Your task to perform on an android device: Show me the alarms in the clock app Image 0: 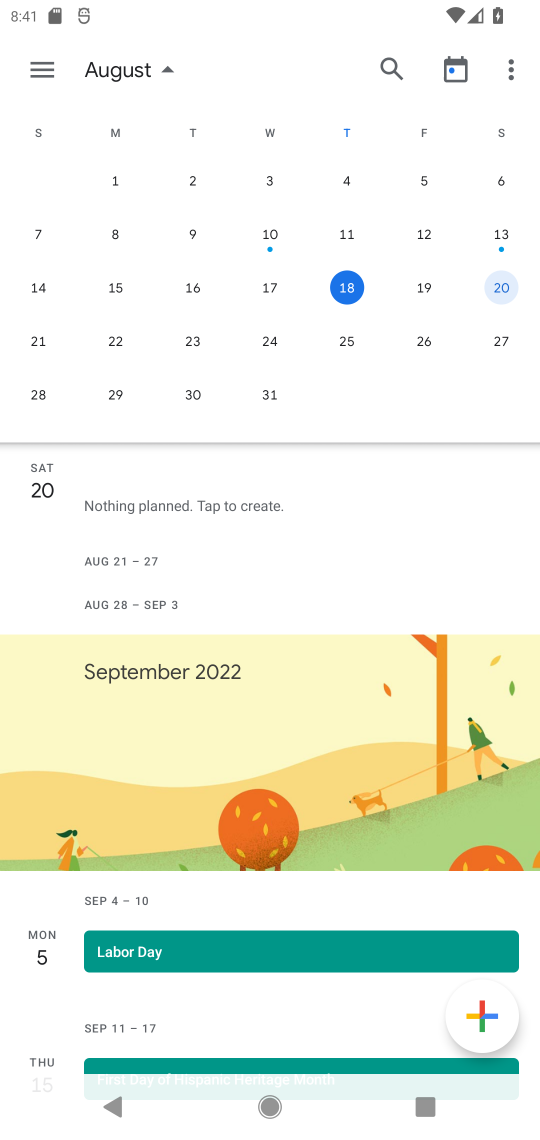
Step 0: press home button
Your task to perform on an android device: Show me the alarms in the clock app Image 1: 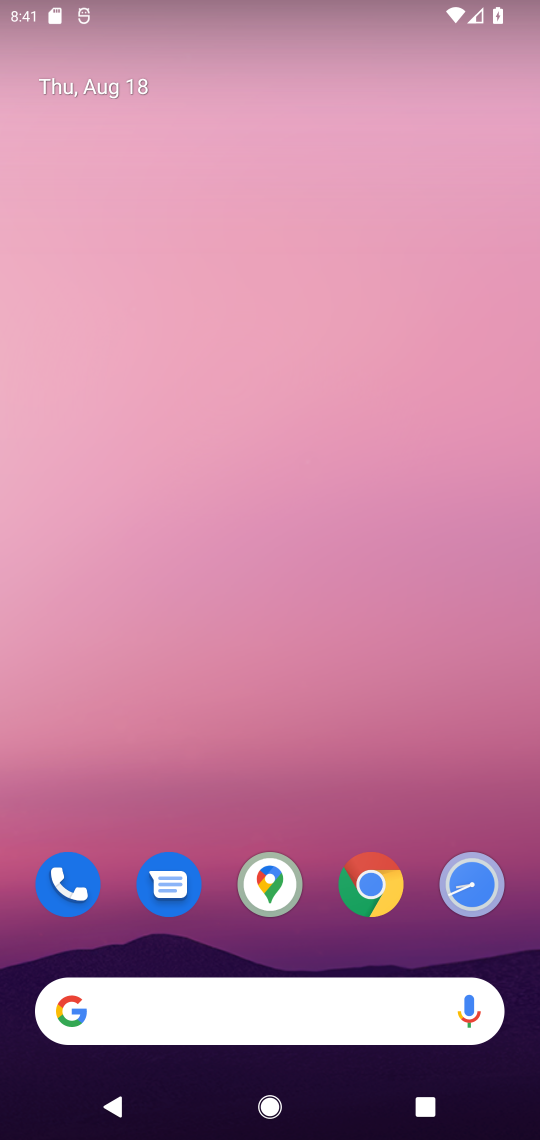
Step 1: click (473, 866)
Your task to perform on an android device: Show me the alarms in the clock app Image 2: 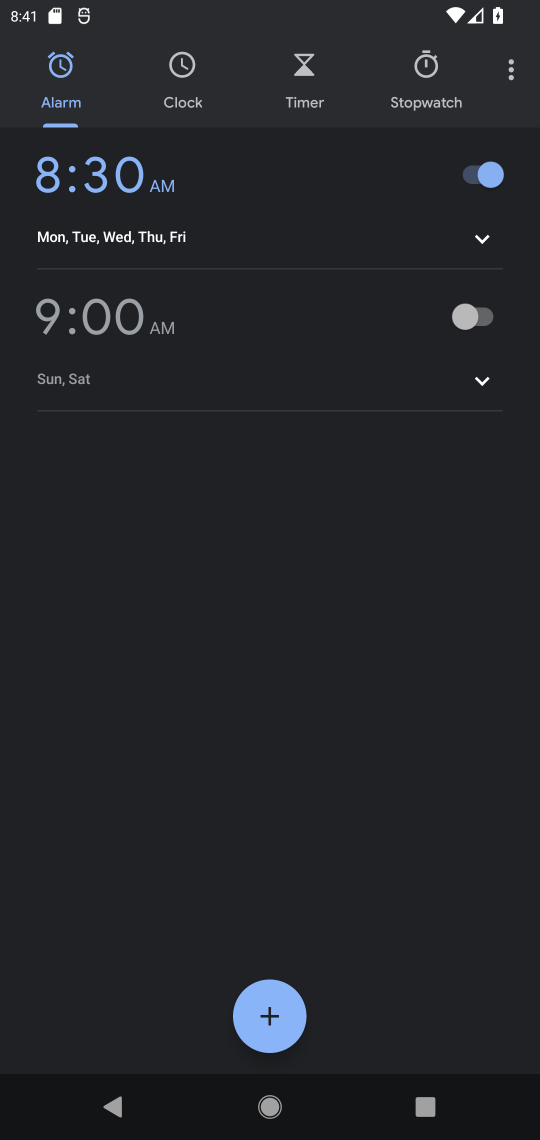
Step 2: task complete